Your task to perform on an android device: Go to Wikipedia Image 0: 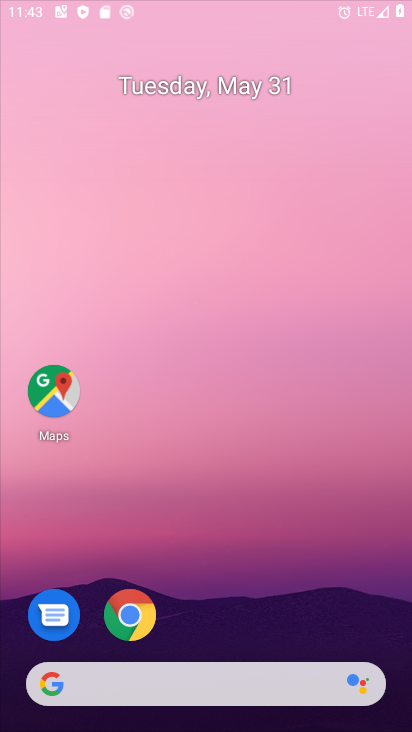
Step 0: drag from (259, 379) to (219, 0)
Your task to perform on an android device: Go to Wikipedia Image 1: 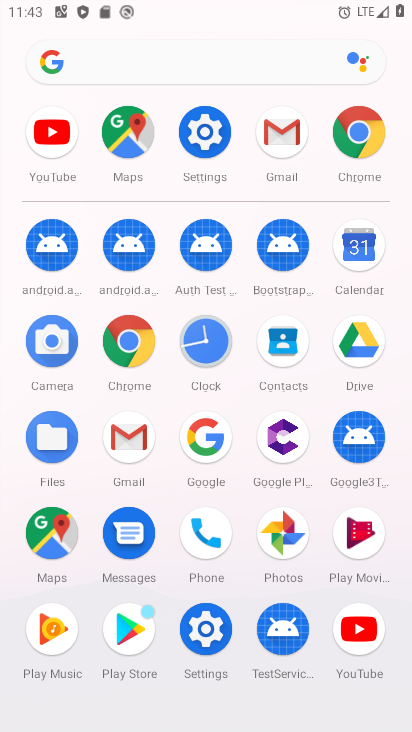
Step 1: click (363, 128)
Your task to perform on an android device: Go to Wikipedia Image 2: 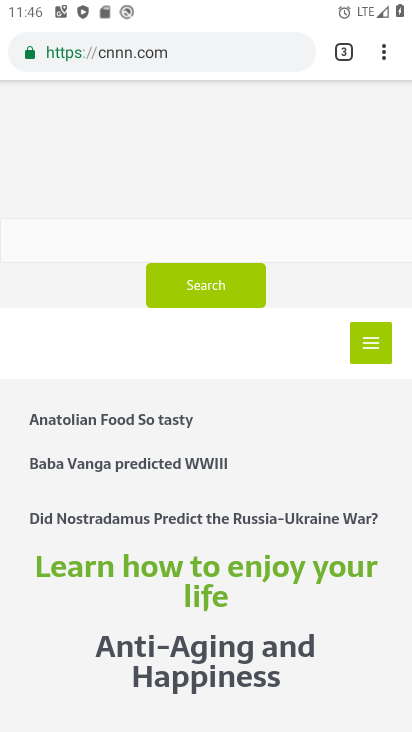
Step 2: click (141, 47)
Your task to perform on an android device: Go to Wikipedia Image 3: 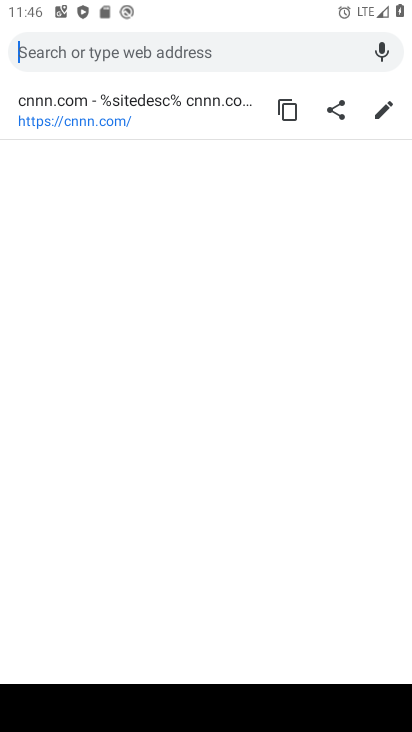
Step 3: type "wikipedia"
Your task to perform on an android device: Go to Wikipedia Image 4: 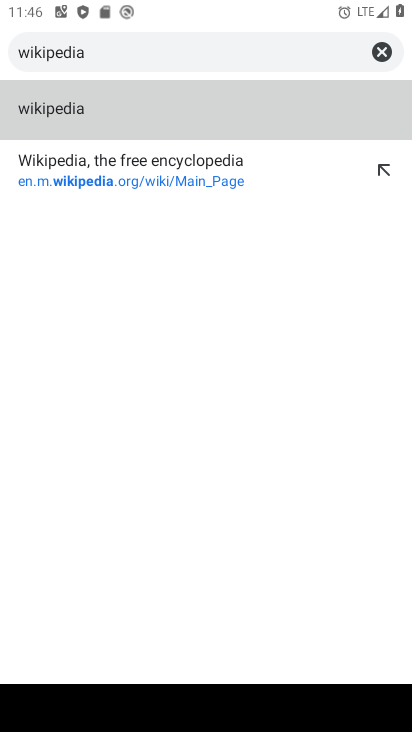
Step 4: click (143, 164)
Your task to perform on an android device: Go to Wikipedia Image 5: 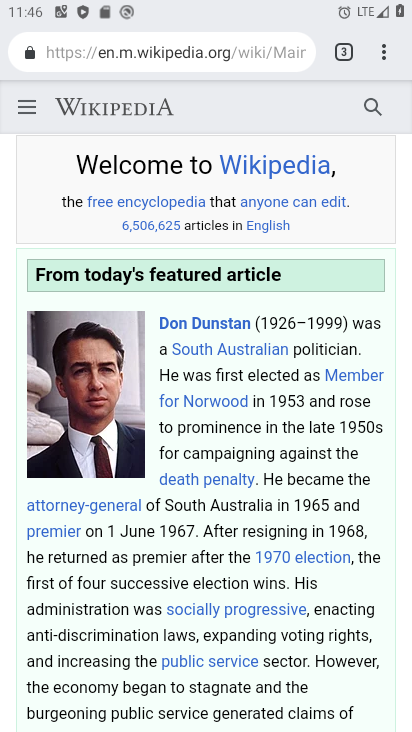
Step 5: task complete